Your task to perform on an android device: change the clock display to analog Image 0: 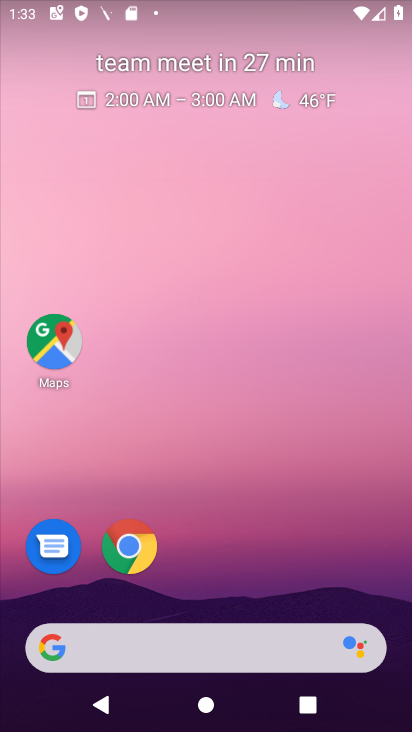
Step 0: drag from (389, 613) to (282, 0)
Your task to perform on an android device: change the clock display to analog Image 1: 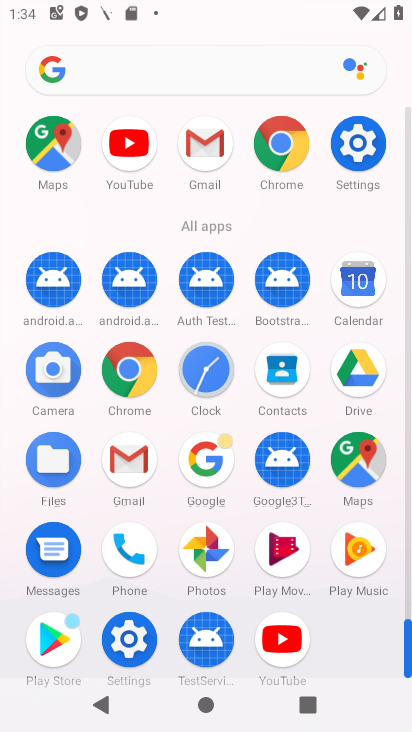
Step 1: click (202, 368)
Your task to perform on an android device: change the clock display to analog Image 2: 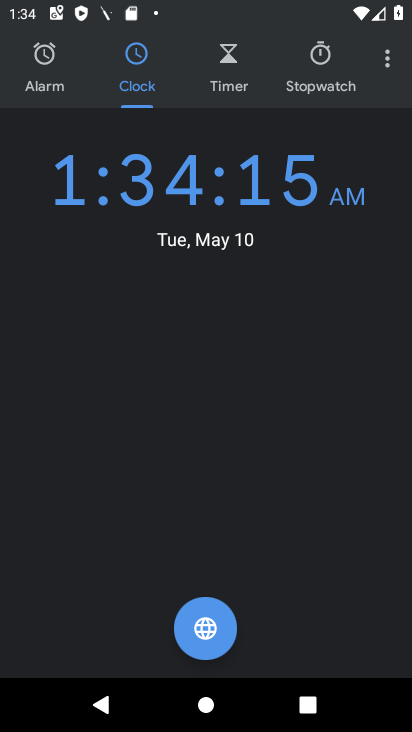
Step 2: click (385, 64)
Your task to perform on an android device: change the clock display to analog Image 3: 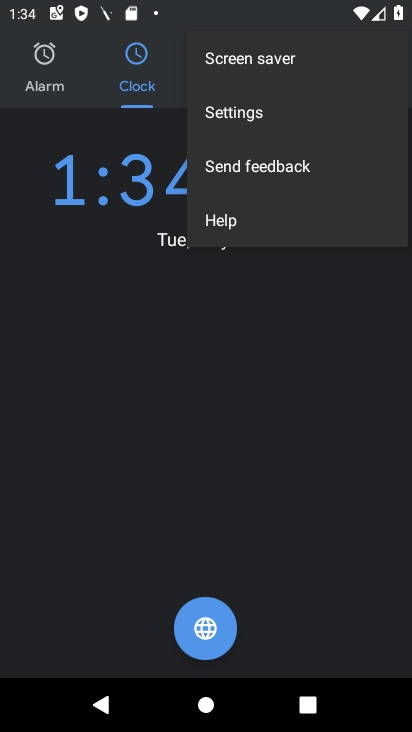
Step 3: click (230, 106)
Your task to perform on an android device: change the clock display to analog Image 4: 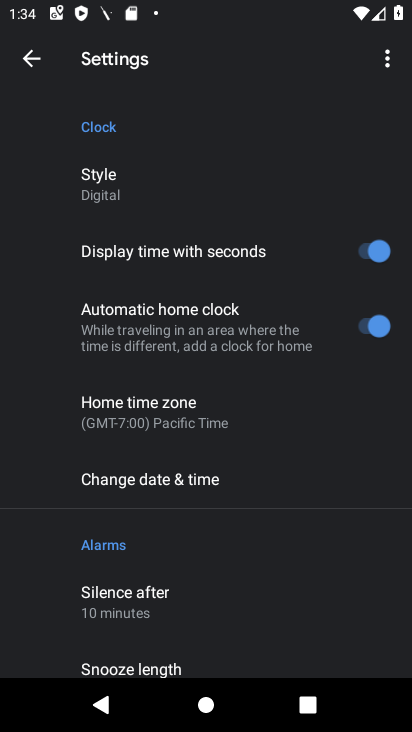
Step 4: click (101, 182)
Your task to perform on an android device: change the clock display to analog Image 5: 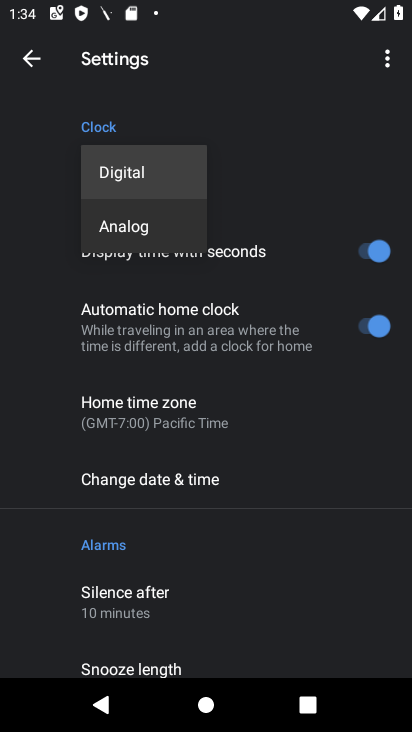
Step 5: click (128, 227)
Your task to perform on an android device: change the clock display to analog Image 6: 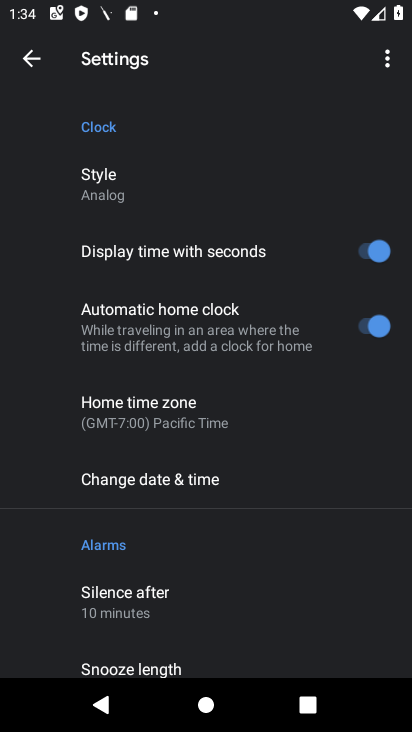
Step 6: task complete